Your task to perform on an android device: open app "Google Photos" (install if not already installed) Image 0: 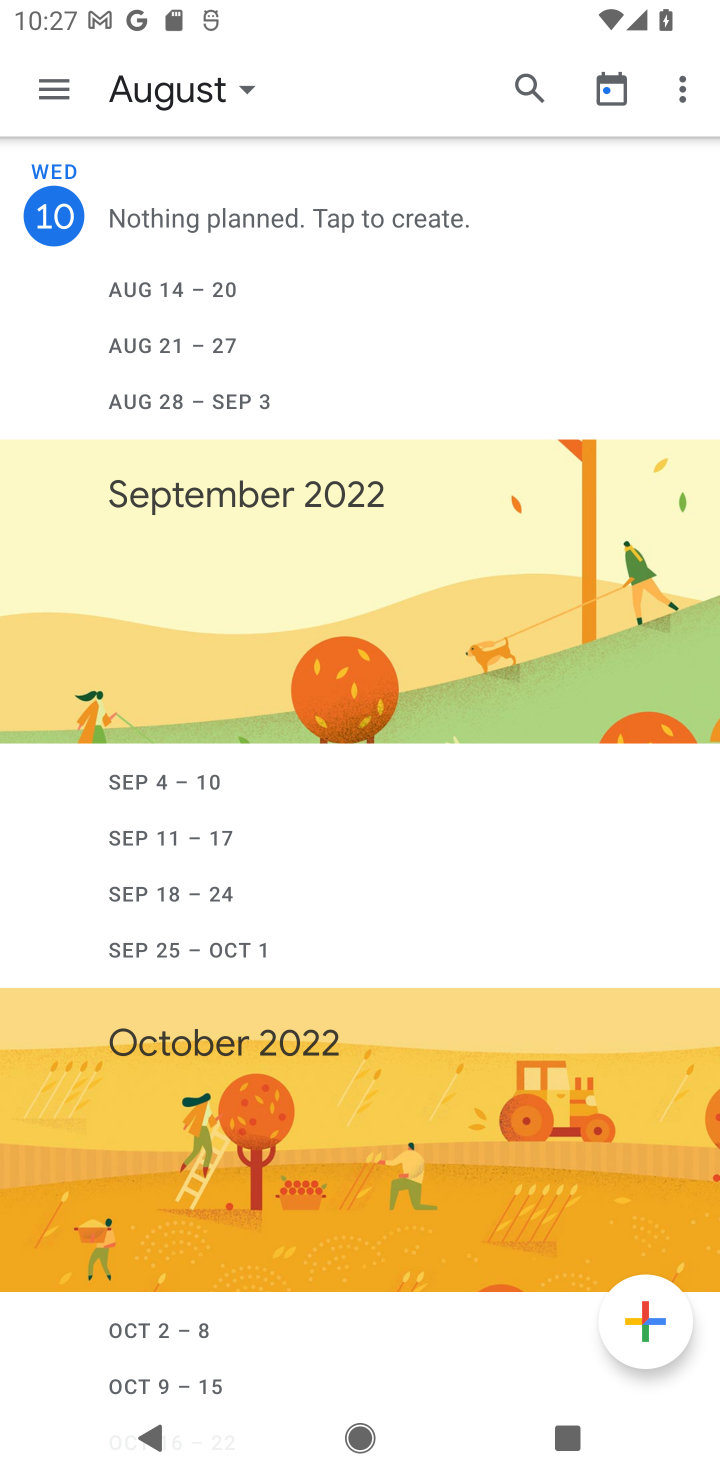
Step 0: press home button
Your task to perform on an android device: open app "Google Photos" (install if not already installed) Image 1: 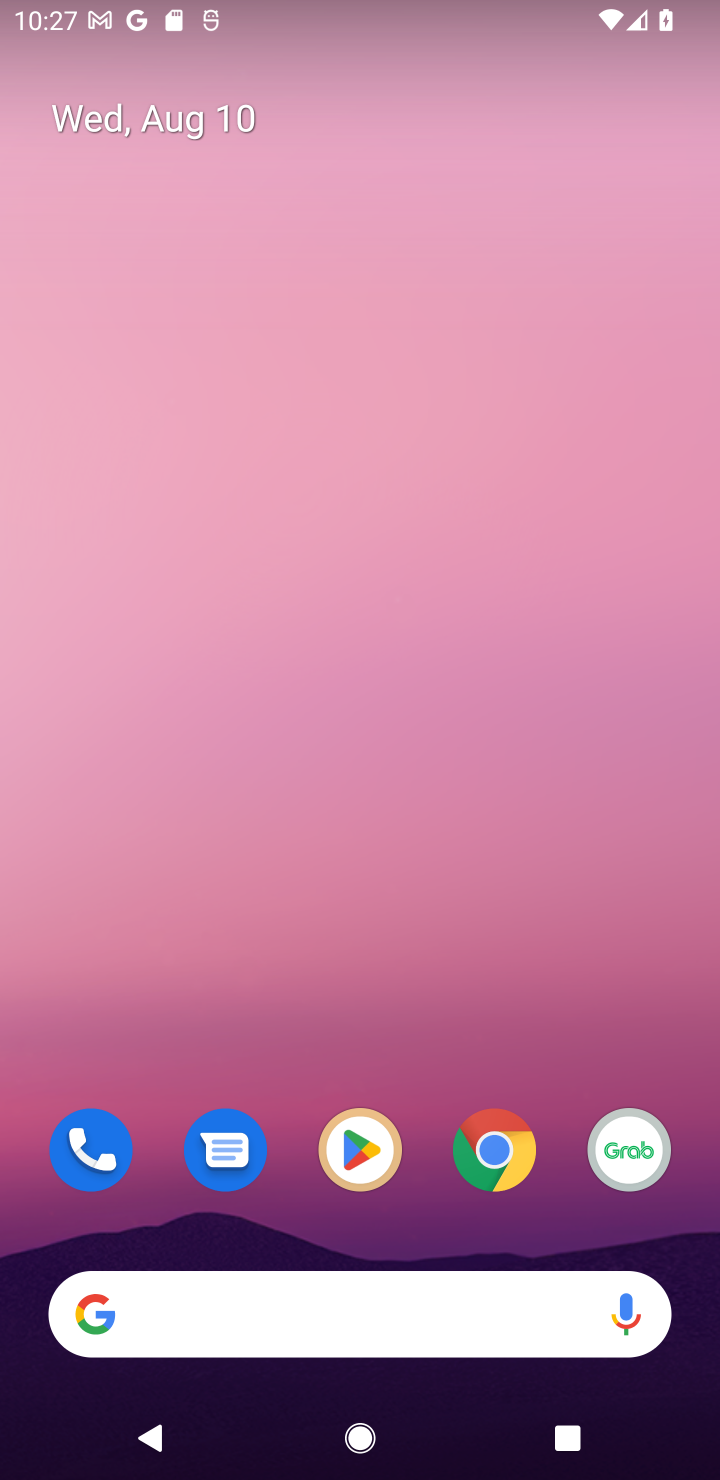
Step 1: click (333, 1146)
Your task to perform on an android device: open app "Google Photos" (install if not already installed) Image 2: 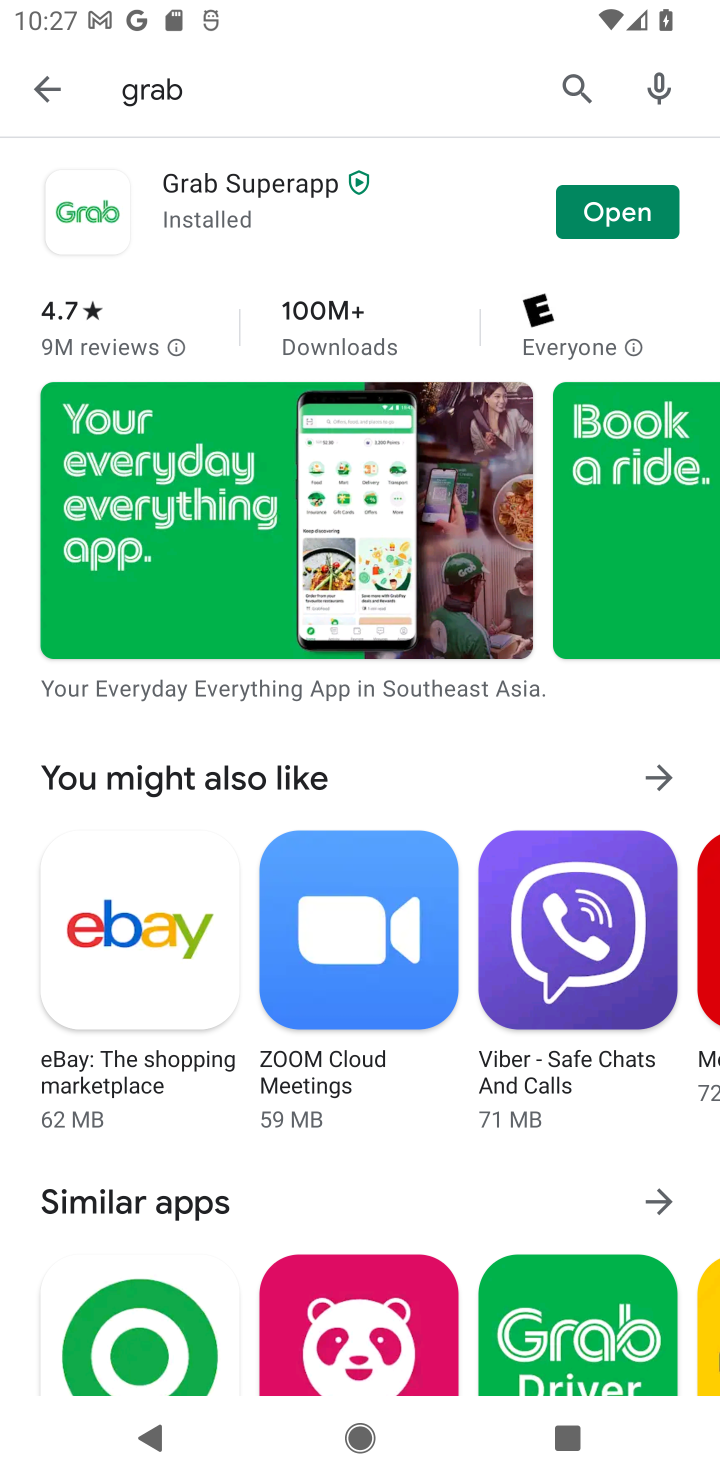
Step 2: click (570, 84)
Your task to perform on an android device: open app "Google Photos" (install if not already installed) Image 3: 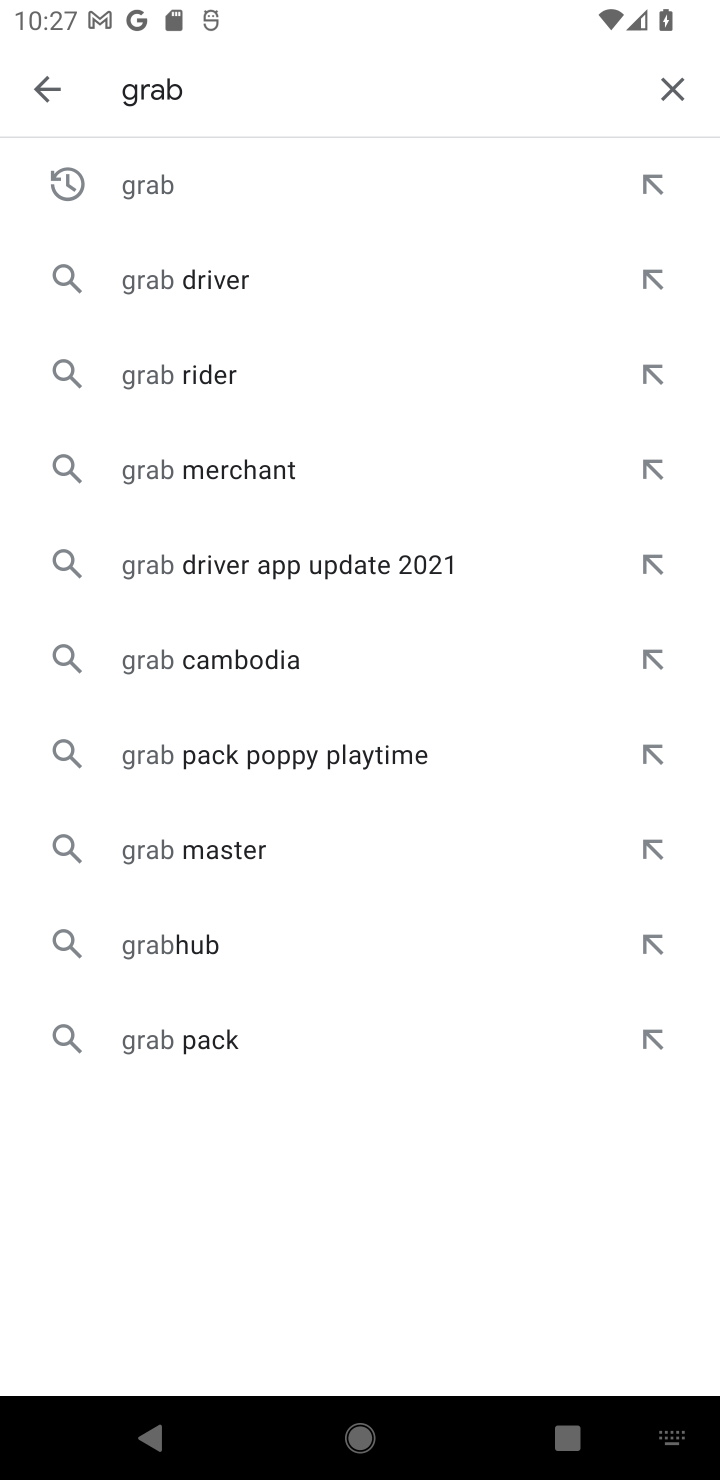
Step 3: click (670, 83)
Your task to perform on an android device: open app "Google Photos" (install if not already installed) Image 4: 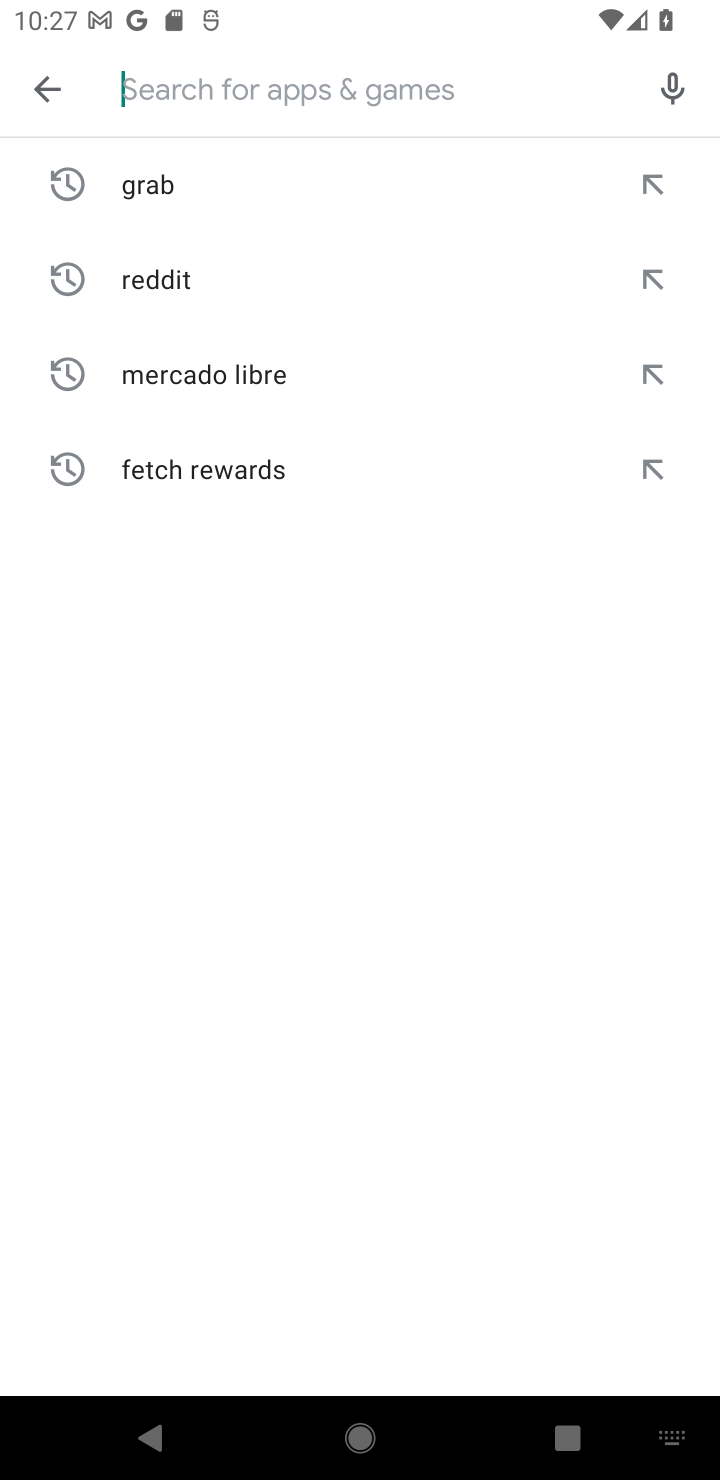
Step 4: type "Google Photos"
Your task to perform on an android device: open app "Google Photos" (install if not already installed) Image 5: 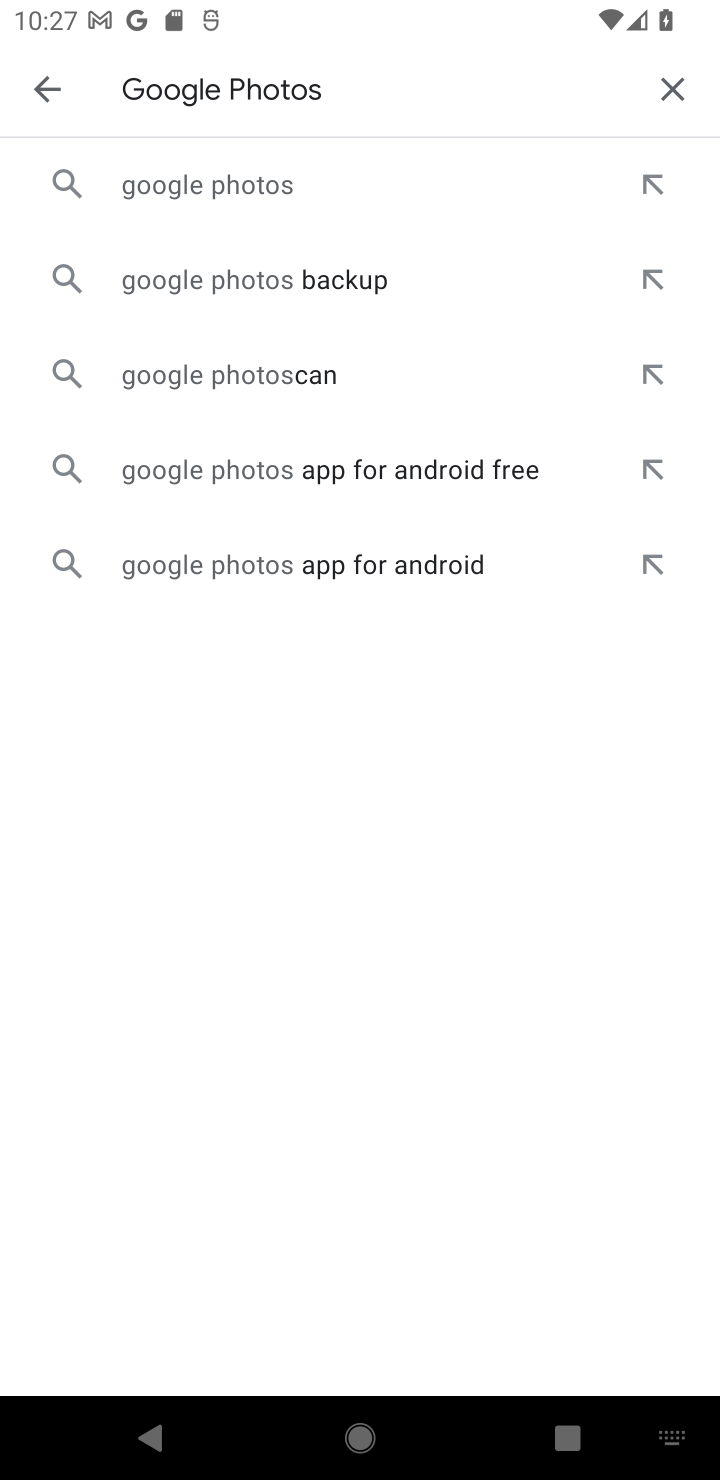
Step 5: click (255, 186)
Your task to perform on an android device: open app "Google Photos" (install if not already installed) Image 6: 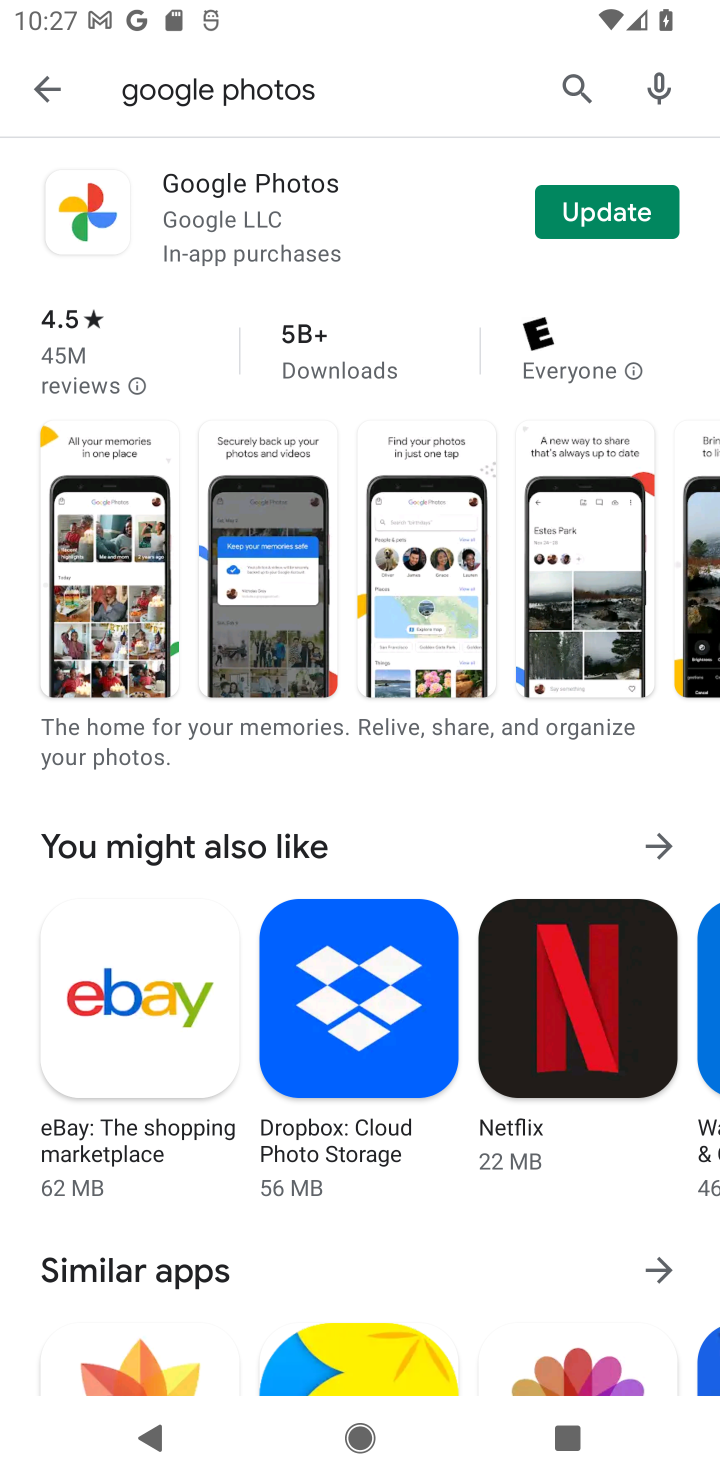
Step 6: click (323, 200)
Your task to perform on an android device: open app "Google Photos" (install if not already installed) Image 7: 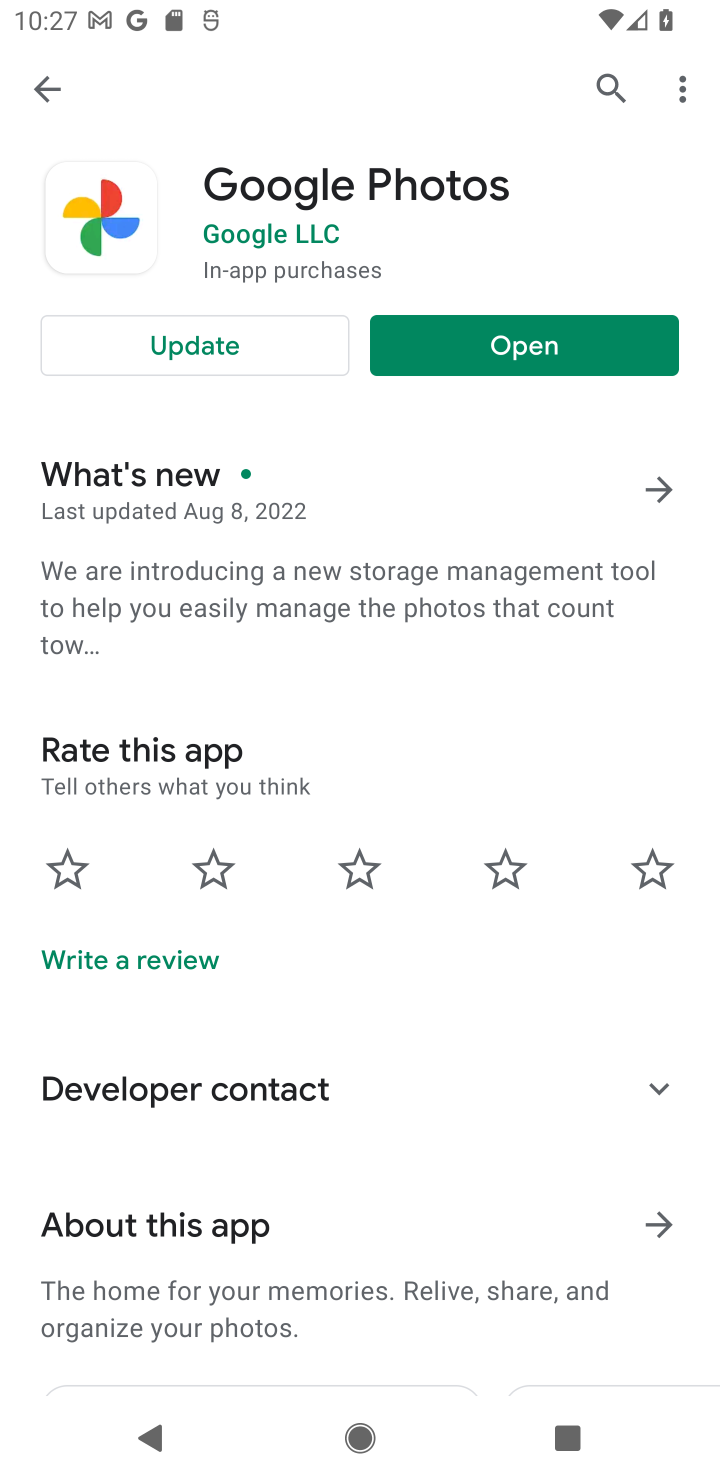
Step 7: click (497, 342)
Your task to perform on an android device: open app "Google Photos" (install if not already installed) Image 8: 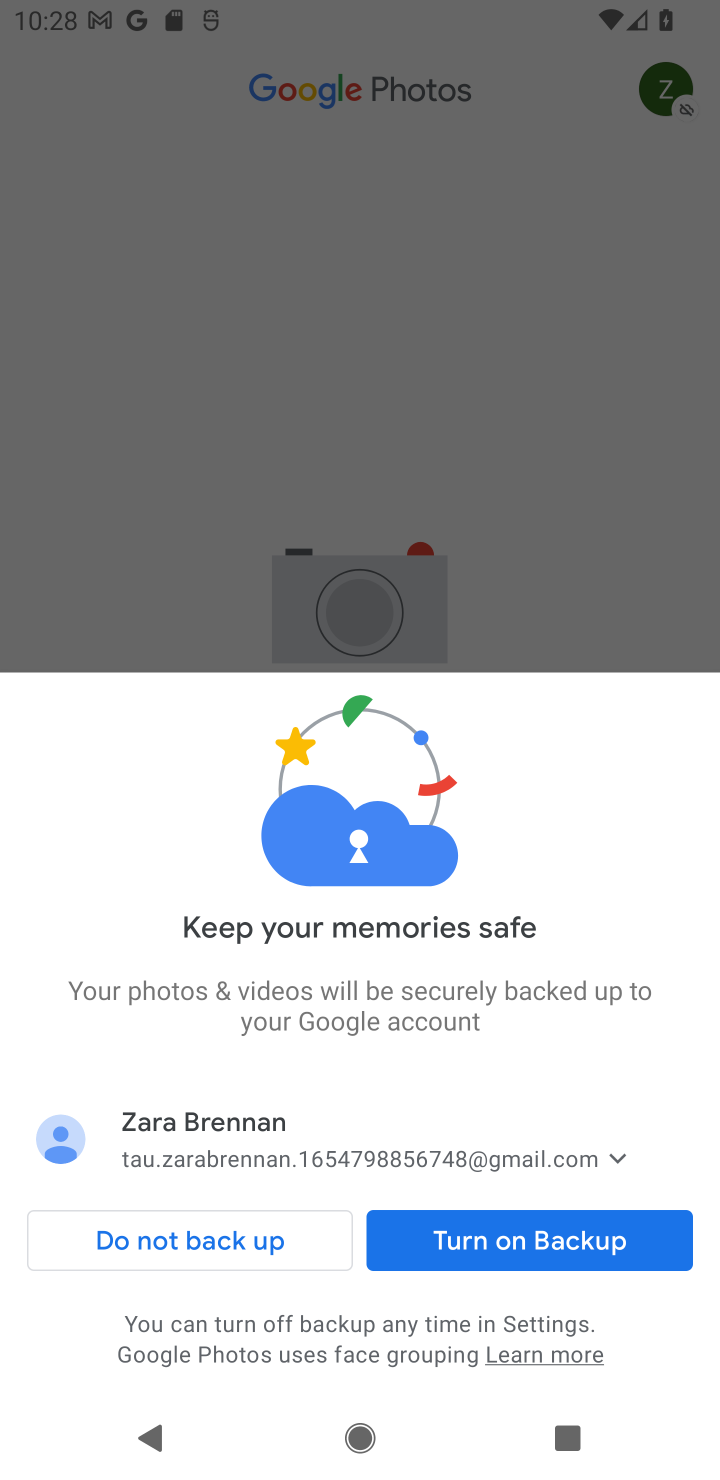
Step 8: task complete